Your task to perform on an android device: See recent photos Image 0: 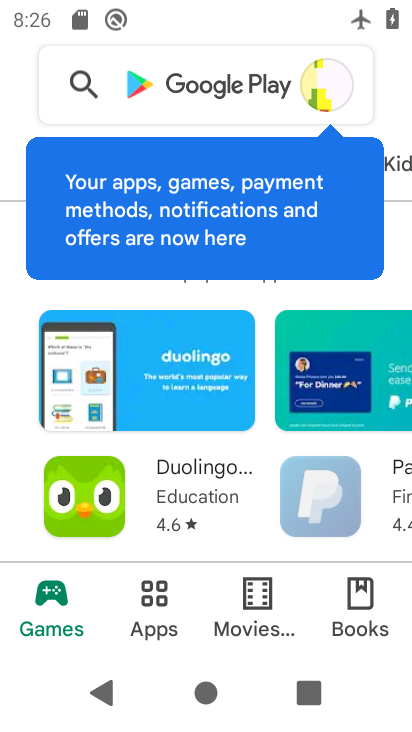
Step 0: press home button
Your task to perform on an android device: See recent photos Image 1: 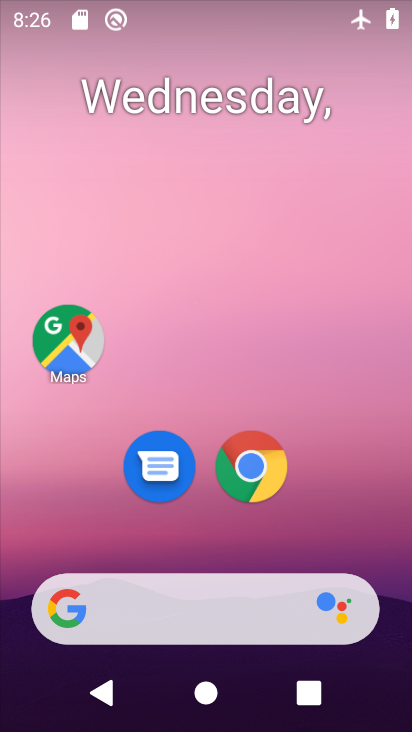
Step 1: drag from (311, 541) to (353, 61)
Your task to perform on an android device: See recent photos Image 2: 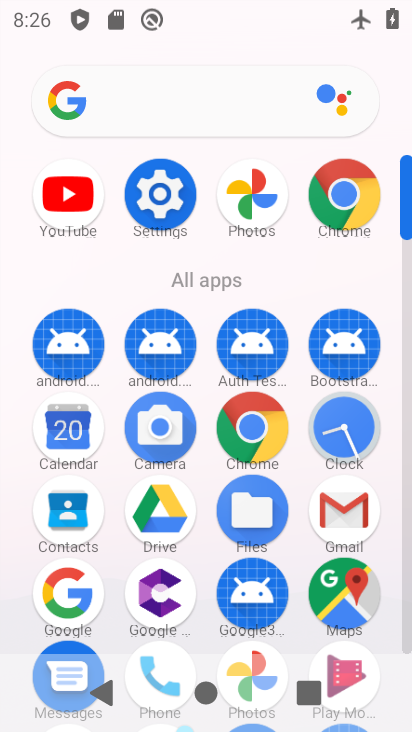
Step 2: click (247, 190)
Your task to perform on an android device: See recent photos Image 3: 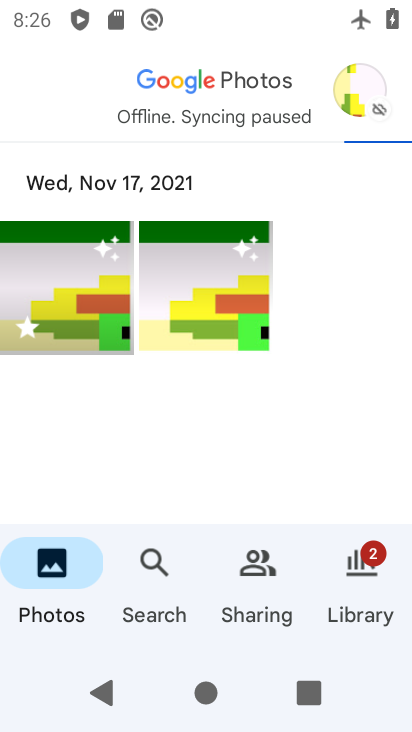
Step 3: task complete